Your task to perform on an android device: Turn on the flashlight Image 0: 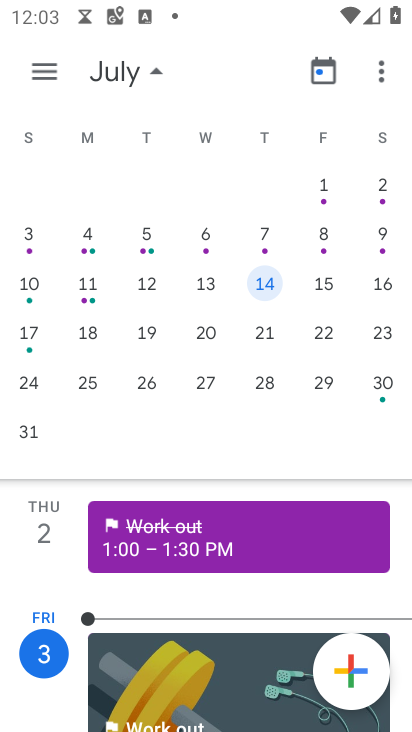
Step 0: press home button
Your task to perform on an android device: Turn on the flashlight Image 1: 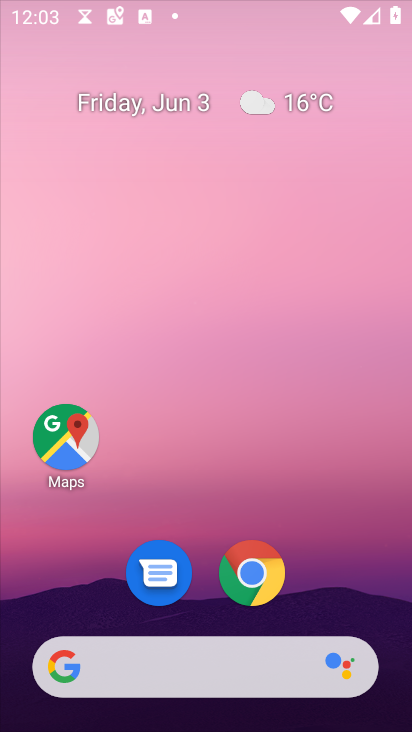
Step 1: drag from (339, 568) to (365, 12)
Your task to perform on an android device: Turn on the flashlight Image 2: 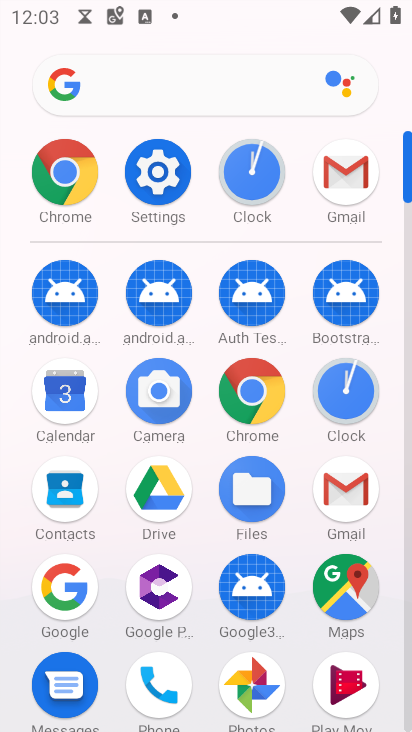
Step 2: click (154, 161)
Your task to perform on an android device: Turn on the flashlight Image 3: 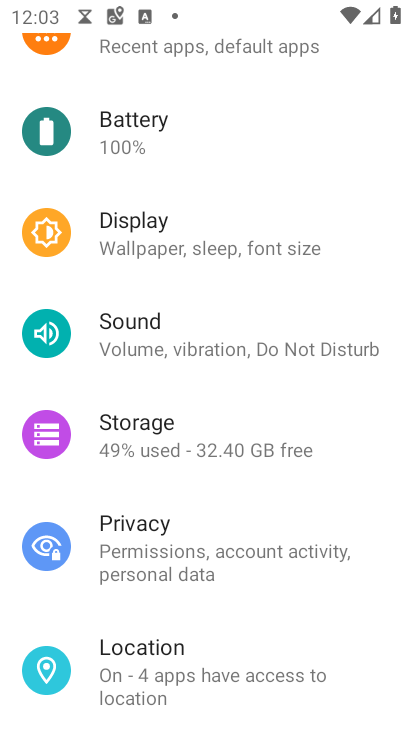
Step 3: task complete